Your task to perform on an android device: turn off smart reply in the gmail app Image 0: 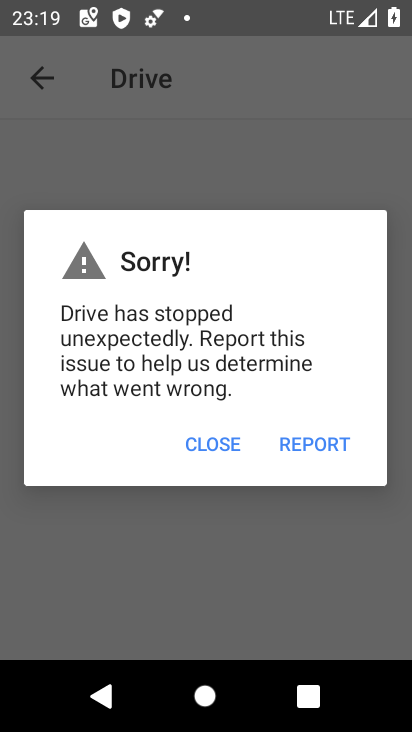
Step 0: press back button
Your task to perform on an android device: turn off smart reply in the gmail app Image 1: 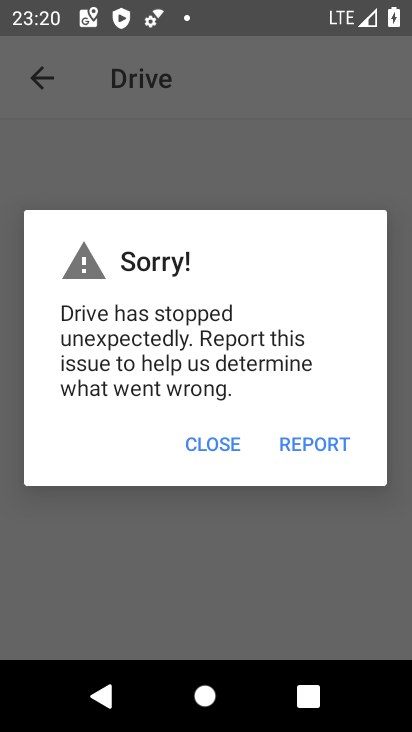
Step 1: press home button
Your task to perform on an android device: turn off smart reply in the gmail app Image 2: 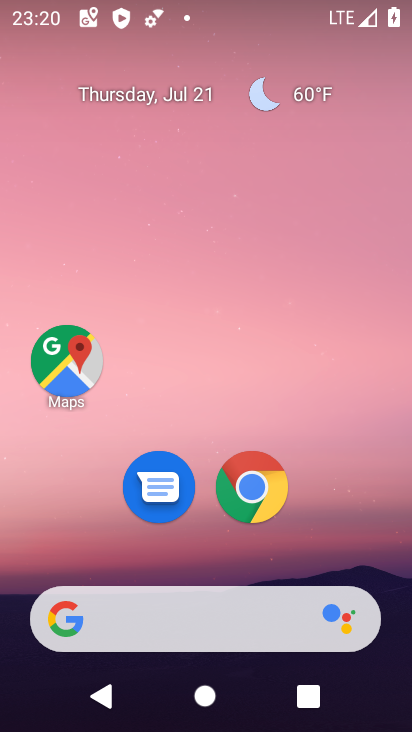
Step 2: drag from (176, 535) to (253, 5)
Your task to perform on an android device: turn off smart reply in the gmail app Image 3: 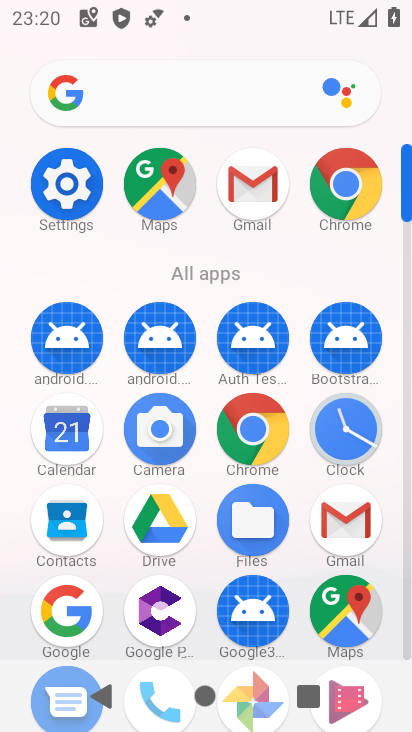
Step 3: click (247, 189)
Your task to perform on an android device: turn off smart reply in the gmail app Image 4: 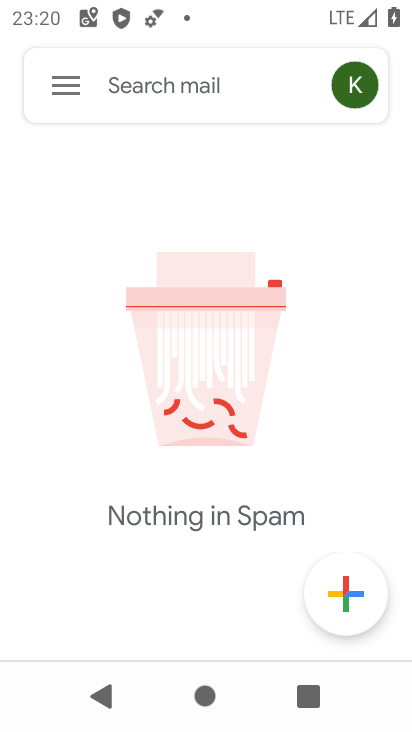
Step 4: click (58, 90)
Your task to perform on an android device: turn off smart reply in the gmail app Image 5: 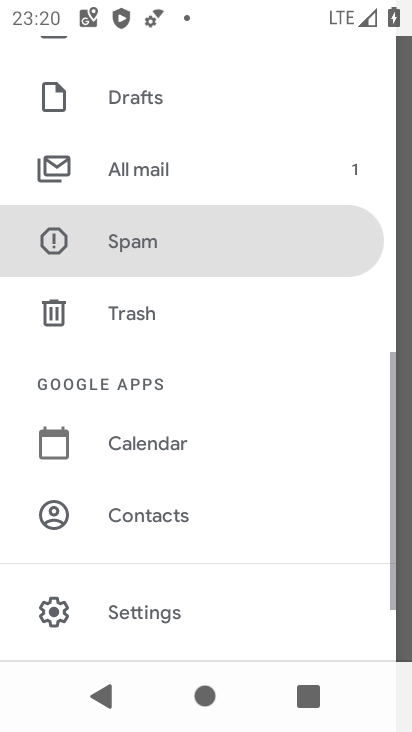
Step 5: click (140, 600)
Your task to perform on an android device: turn off smart reply in the gmail app Image 6: 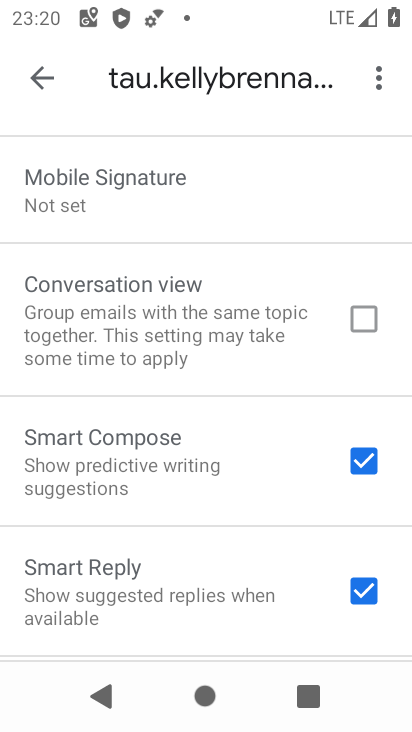
Step 6: click (364, 583)
Your task to perform on an android device: turn off smart reply in the gmail app Image 7: 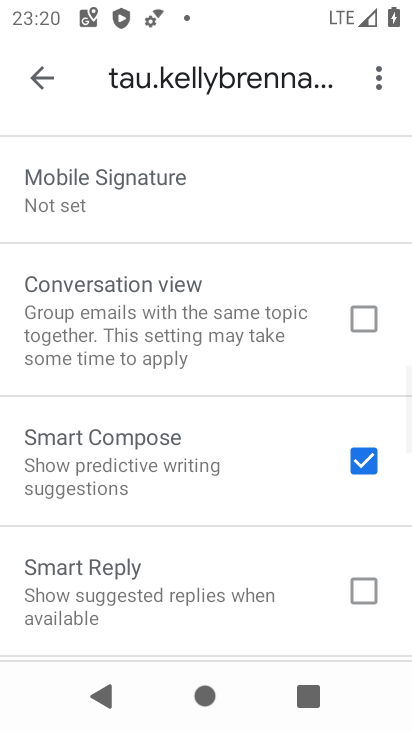
Step 7: task complete